Your task to perform on an android device: snooze an email in the gmail app Image 0: 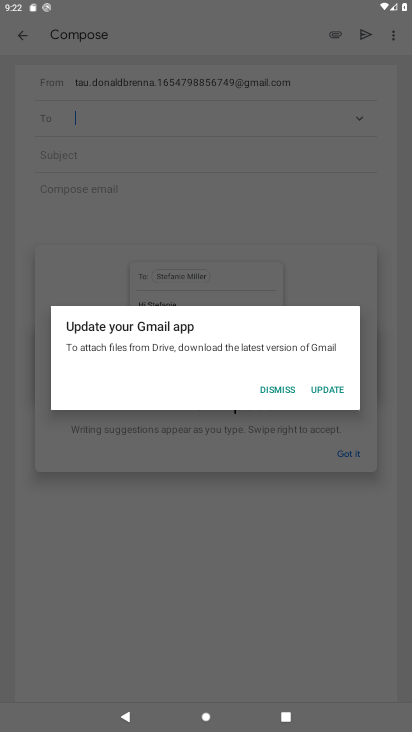
Step 0: press home button
Your task to perform on an android device: snooze an email in the gmail app Image 1: 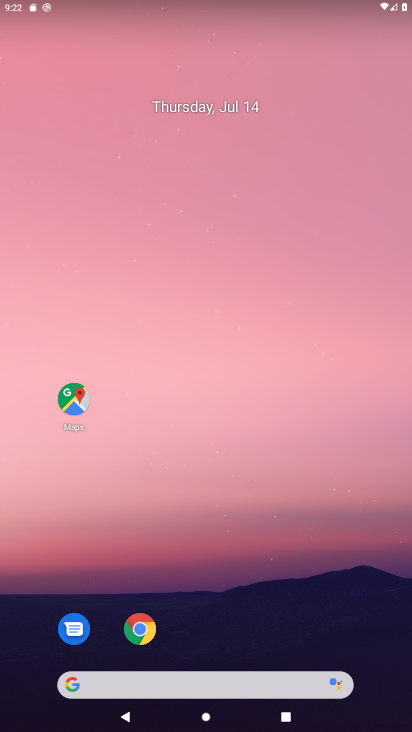
Step 1: drag from (338, 600) to (330, 30)
Your task to perform on an android device: snooze an email in the gmail app Image 2: 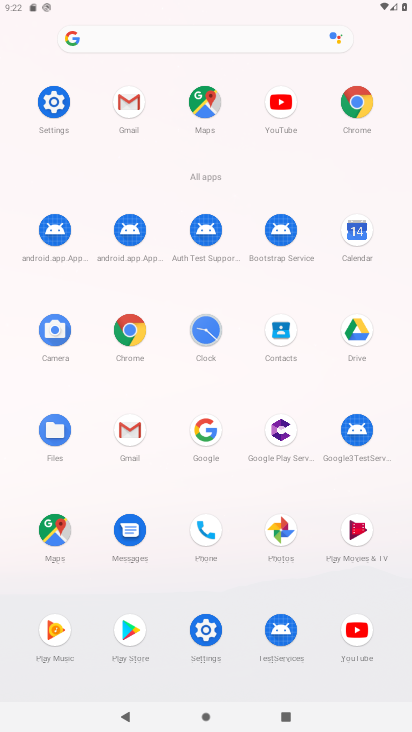
Step 2: click (131, 427)
Your task to perform on an android device: snooze an email in the gmail app Image 3: 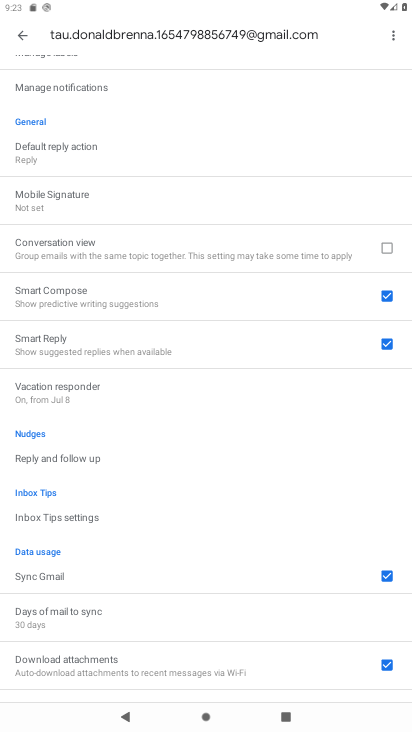
Step 3: click (21, 31)
Your task to perform on an android device: snooze an email in the gmail app Image 4: 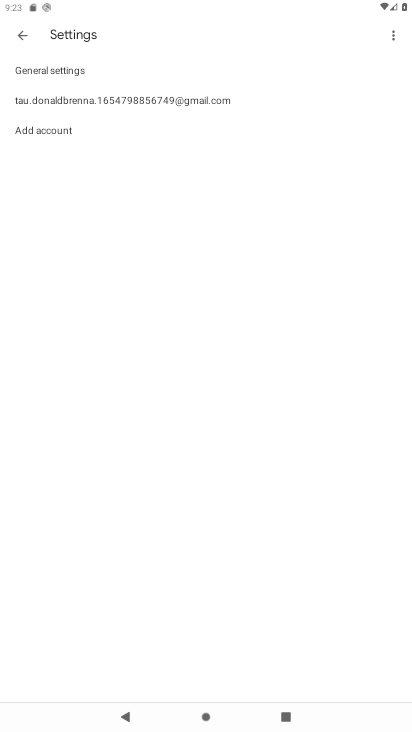
Step 4: click (16, 32)
Your task to perform on an android device: snooze an email in the gmail app Image 5: 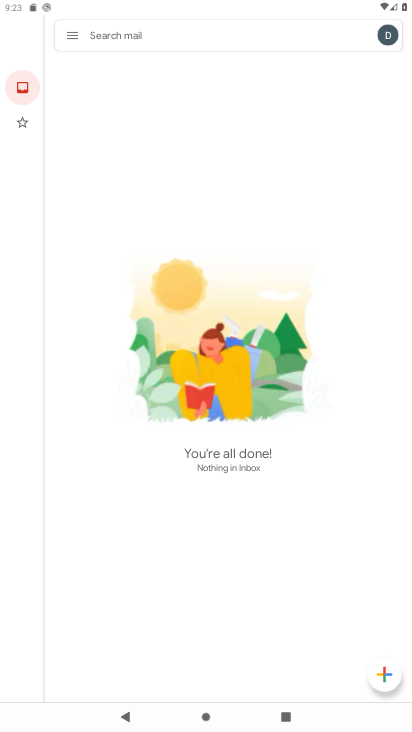
Step 5: click (66, 28)
Your task to perform on an android device: snooze an email in the gmail app Image 6: 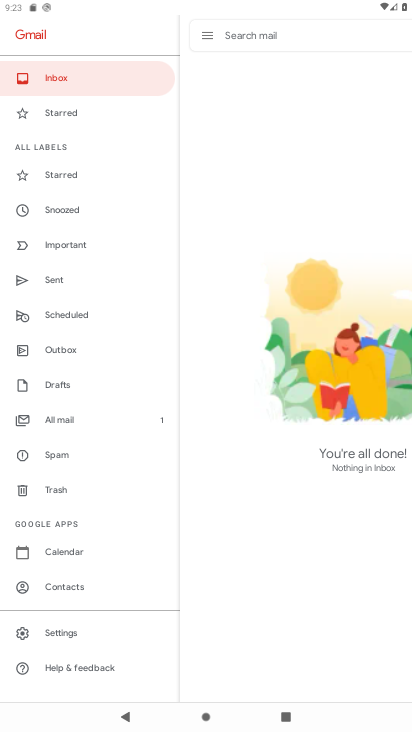
Step 6: click (61, 207)
Your task to perform on an android device: snooze an email in the gmail app Image 7: 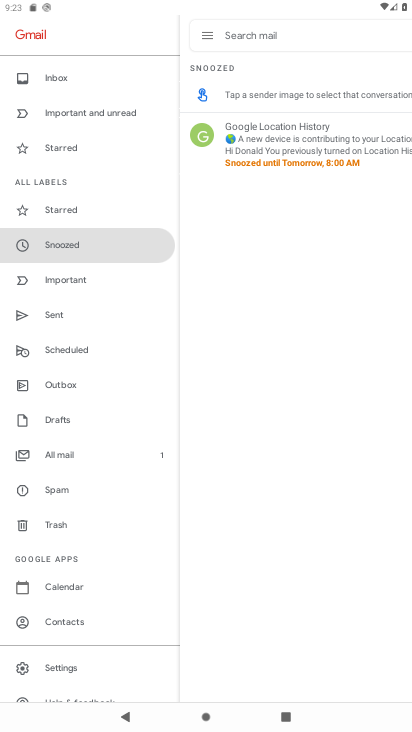
Step 7: task complete